Your task to perform on an android device: move an email to a new category in the gmail app Image 0: 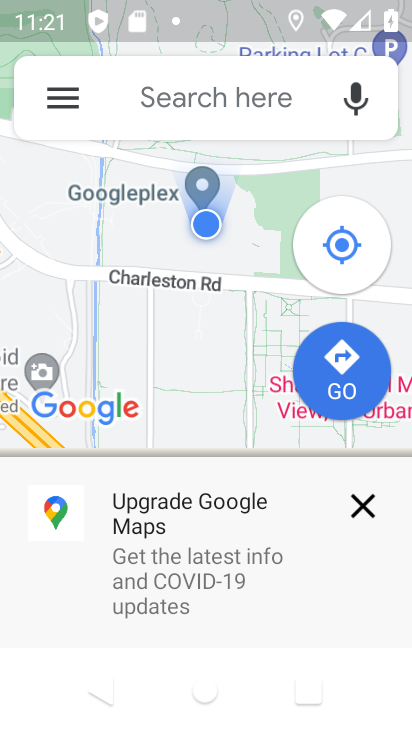
Step 0: press home button
Your task to perform on an android device: move an email to a new category in the gmail app Image 1: 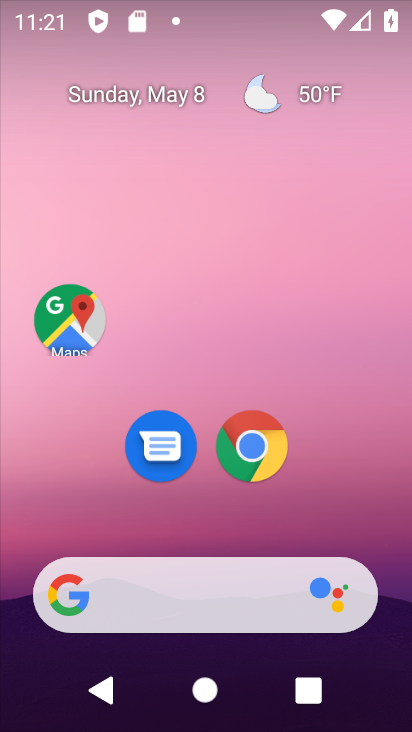
Step 1: drag from (339, 533) to (252, 77)
Your task to perform on an android device: move an email to a new category in the gmail app Image 2: 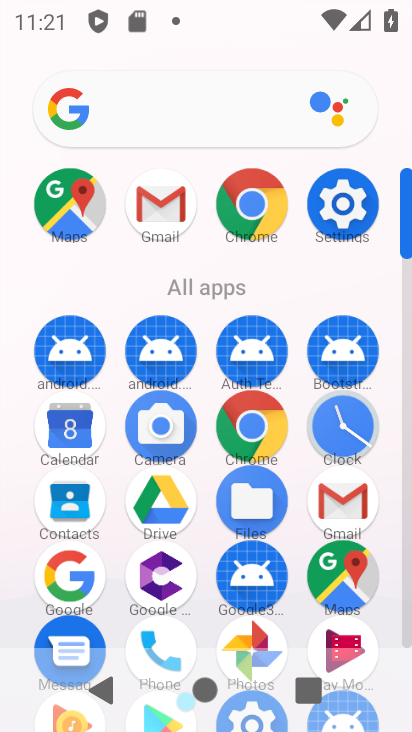
Step 2: click (359, 502)
Your task to perform on an android device: move an email to a new category in the gmail app Image 3: 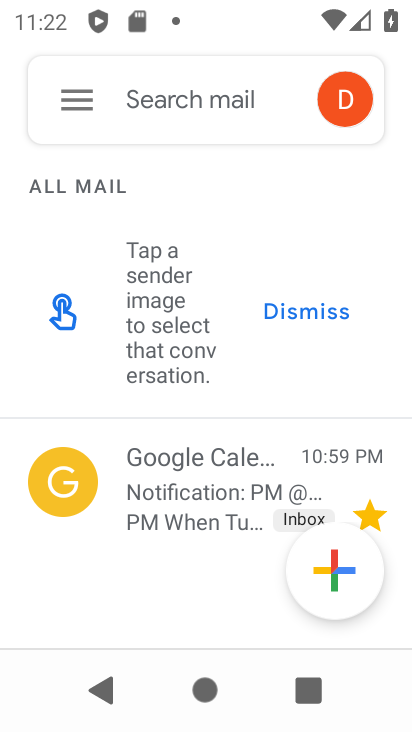
Step 3: click (287, 491)
Your task to perform on an android device: move an email to a new category in the gmail app Image 4: 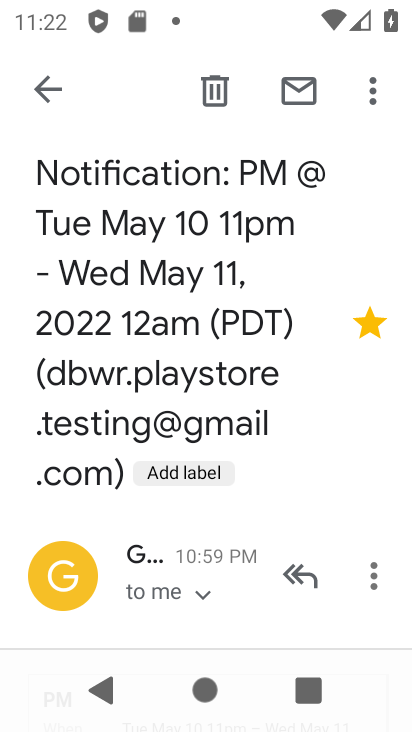
Step 4: click (371, 334)
Your task to perform on an android device: move an email to a new category in the gmail app Image 5: 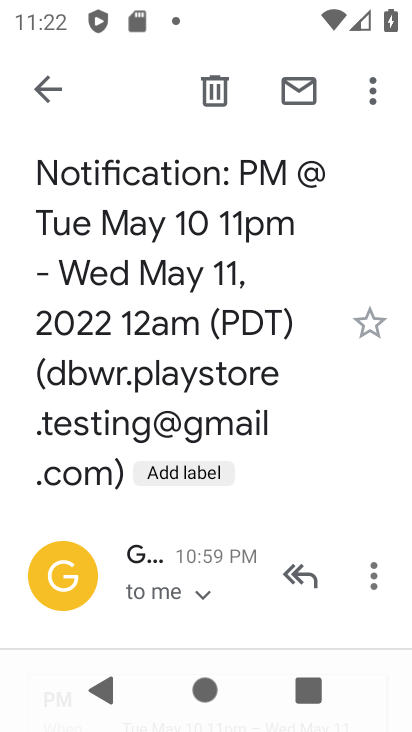
Step 5: task complete